Your task to perform on an android device: Open Youtube and go to "Your channel" Image 0: 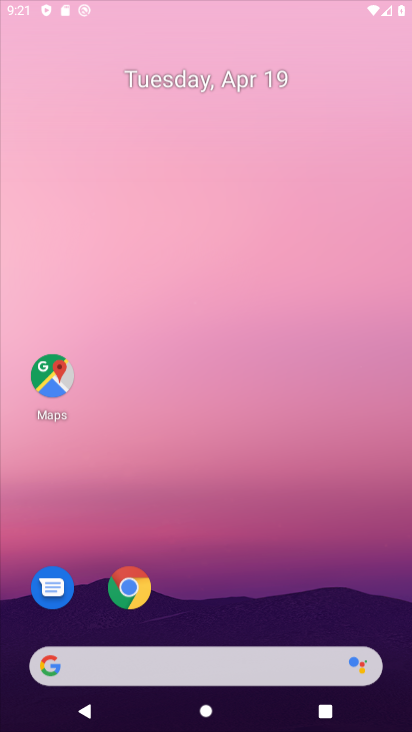
Step 0: click (129, 587)
Your task to perform on an android device: Open Youtube and go to "Your channel" Image 1: 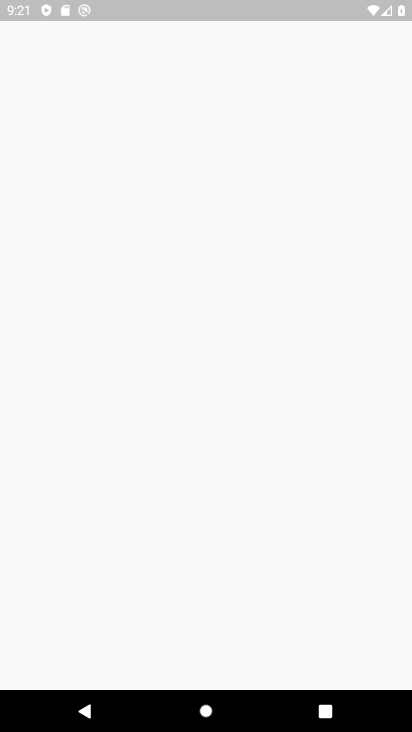
Step 1: press back button
Your task to perform on an android device: Open Youtube and go to "Your channel" Image 2: 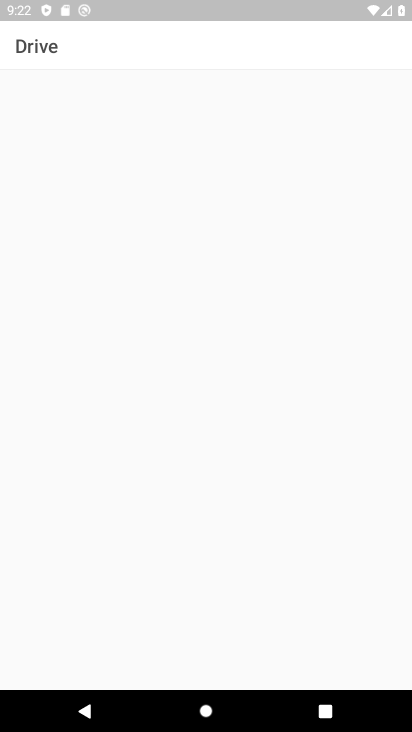
Step 2: press back button
Your task to perform on an android device: Open Youtube and go to "Your channel" Image 3: 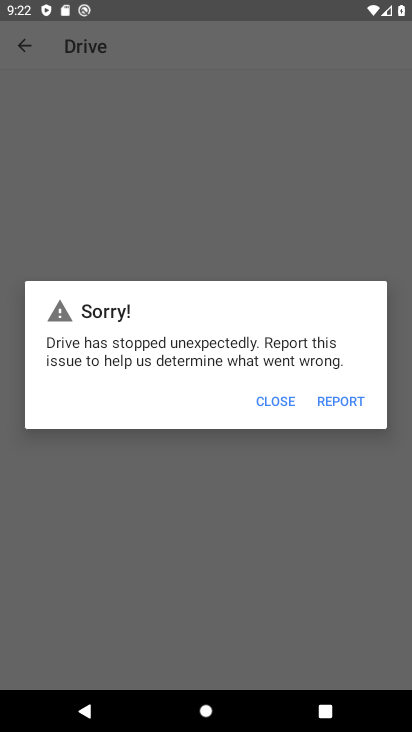
Step 3: press back button
Your task to perform on an android device: Open Youtube and go to "Your channel" Image 4: 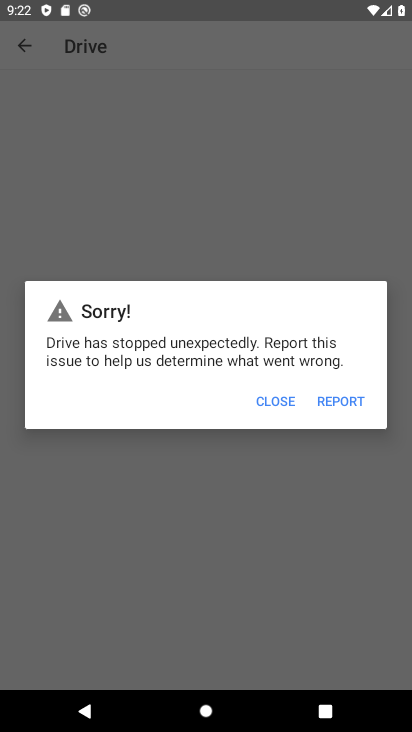
Step 4: click (259, 397)
Your task to perform on an android device: Open Youtube and go to "Your channel" Image 5: 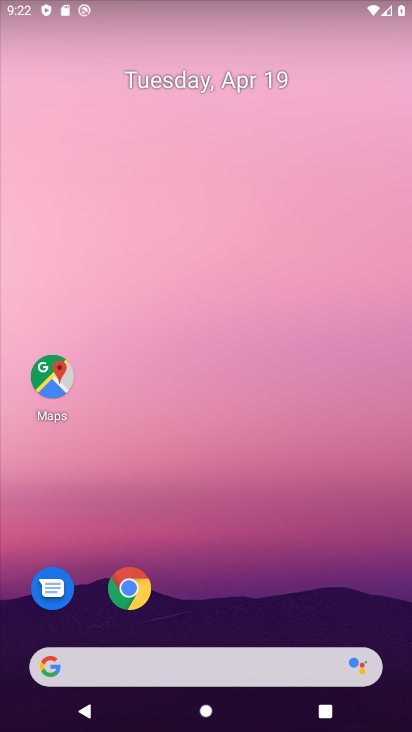
Step 5: drag from (239, 627) to (364, 62)
Your task to perform on an android device: Open Youtube and go to "Your channel" Image 6: 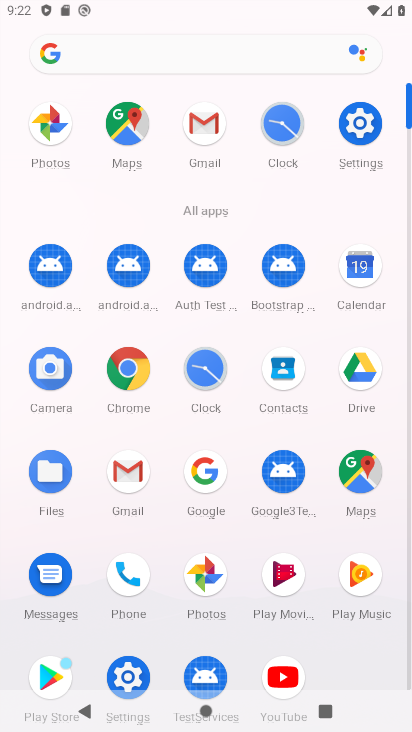
Step 6: click (288, 677)
Your task to perform on an android device: Open Youtube and go to "Your channel" Image 7: 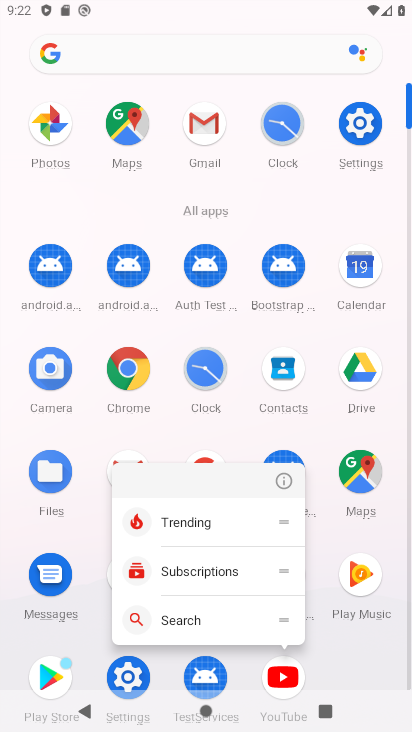
Step 7: click (286, 666)
Your task to perform on an android device: Open Youtube and go to "Your channel" Image 8: 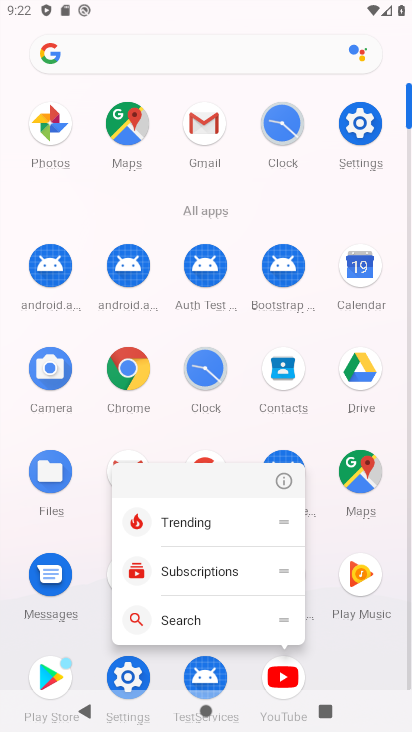
Step 8: click (274, 662)
Your task to perform on an android device: Open Youtube and go to "Your channel" Image 9: 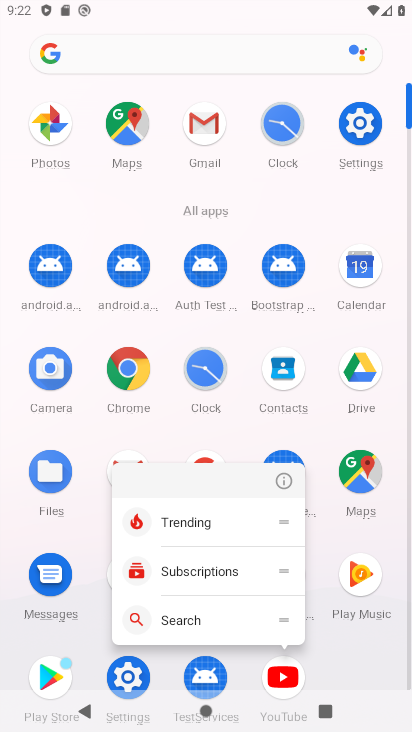
Step 9: click (285, 679)
Your task to perform on an android device: Open Youtube and go to "Your channel" Image 10: 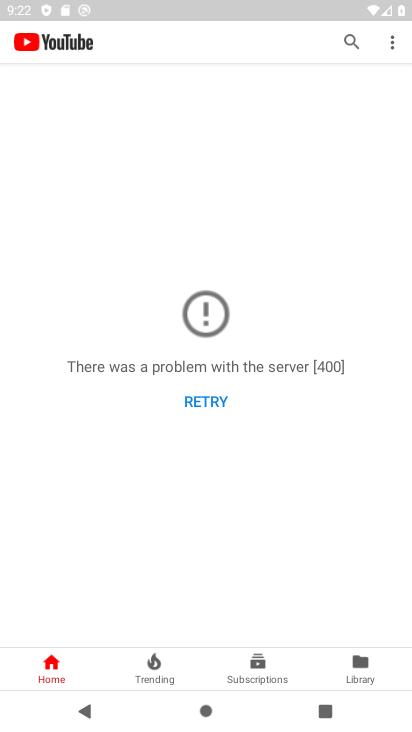
Step 10: click (389, 41)
Your task to perform on an android device: Open Youtube and go to "Your channel" Image 11: 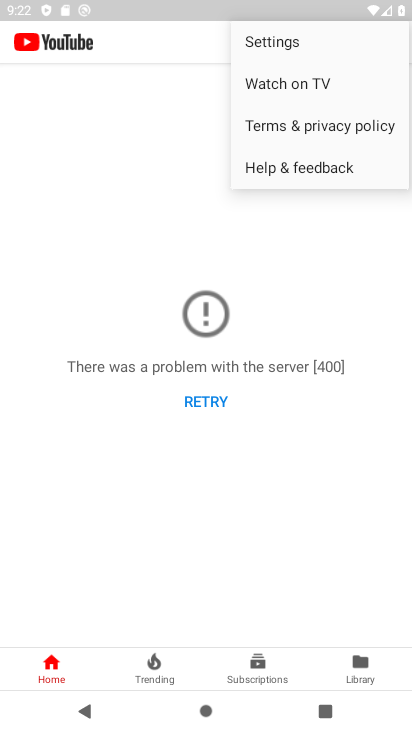
Step 11: click (346, 664)
Your task to perform on an android device: Open Youtube and go to "Your channel" Image 12: 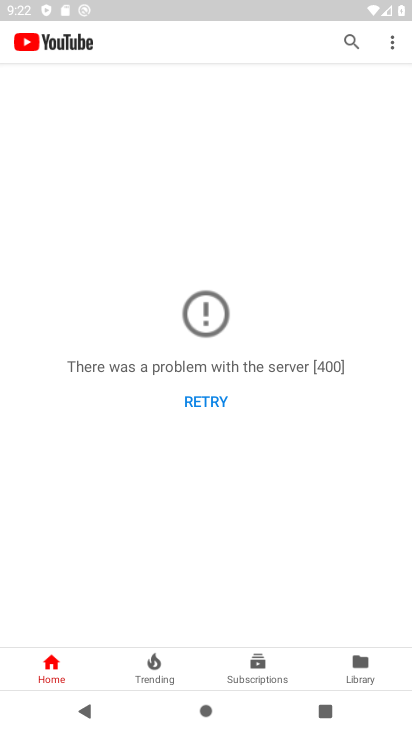
Step 12: click (355, 665)
Your task to perform on an android device: Open Youtube and go to "Your channel" Image 13: 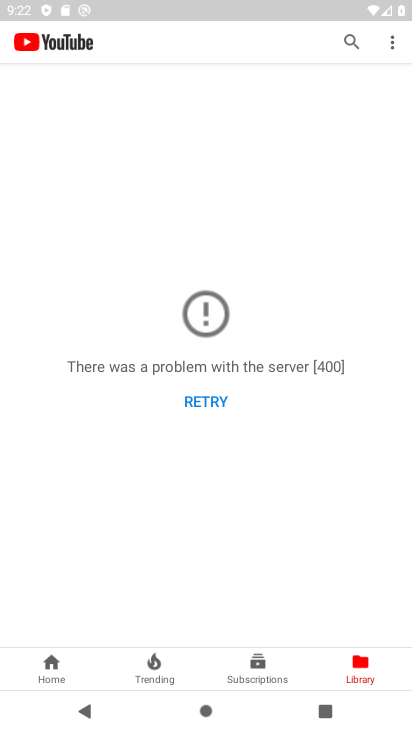
Step 13: task complete